Your task to perform on an android device: Open Google Maps Image 0: 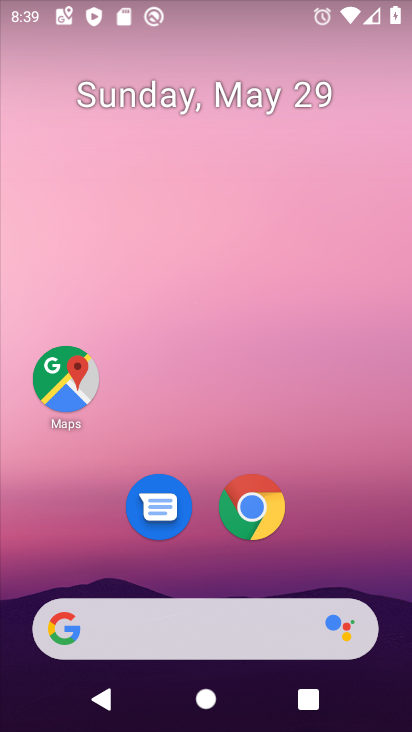
Step 0: click (62, 389)
Your task to perform on an android device: Open Google Maps Image 1: 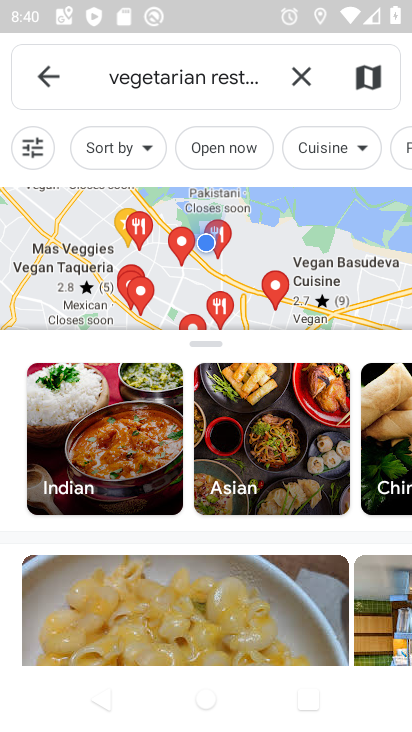
Step 1: task complete